Your task to perform on an android device: turn on location history Image 0: 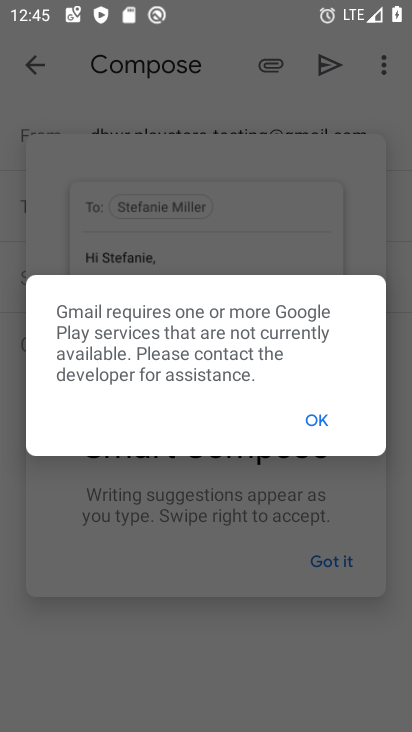
Step 0: press home button
Your task to perform on an android device: turn on location history Image 1: 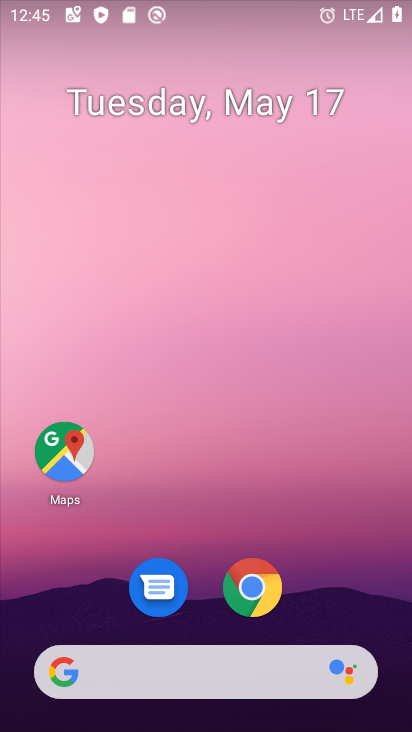
Step 1: drag from (374, 554) to (279, 123)
Your task to perform on an android device: turn on location history Image 2: 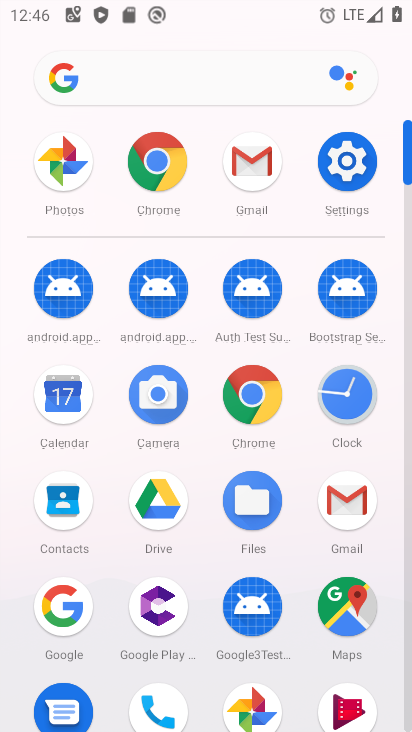
Step 2: click (334, 195)
Your task to perform on an android device: turn on location history Image 3: 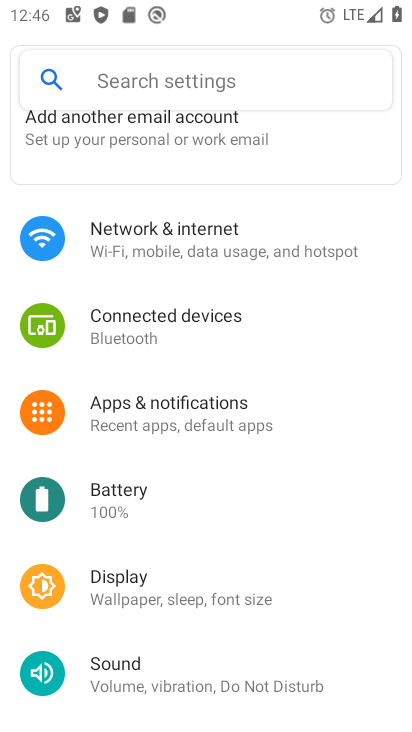
Step 3: drag from (145, 666) to (213, 201)
Your task to perform on an android device: turn on location history Image 4: 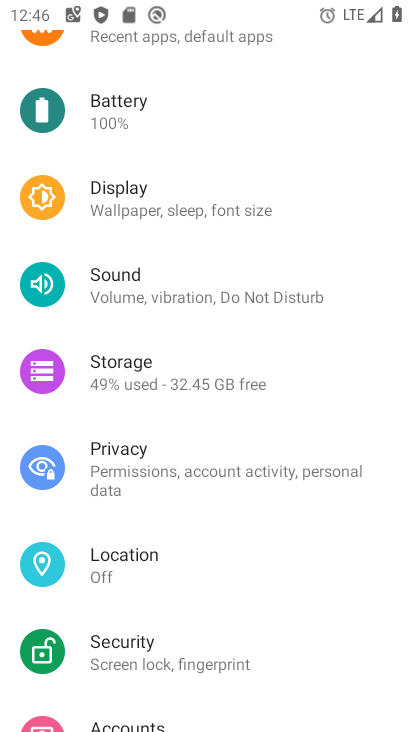
Step 4: click (138, 552)
Your task to perform on an android device: turn on location history Image 5: 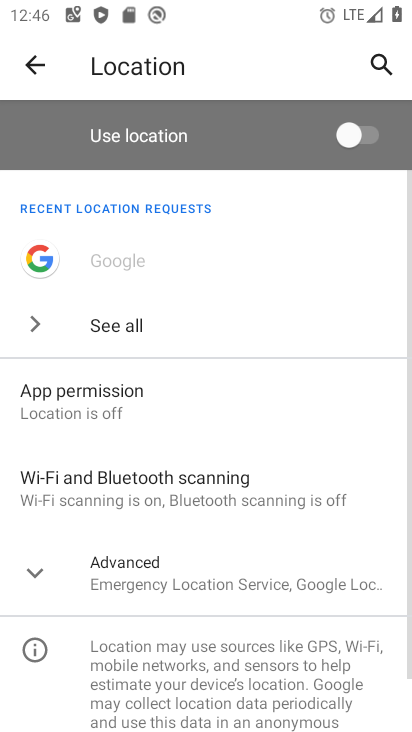
Step 5: click (135, 573)
Your task to perform on an android device: turn on location history Image 6: 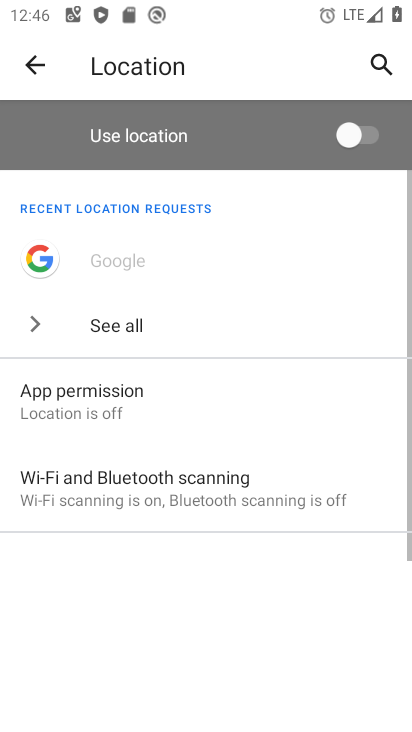
Step 6: drag from (146, 598) to (221, 406)
Your task to perform on an android device: turn on location history Image 7: 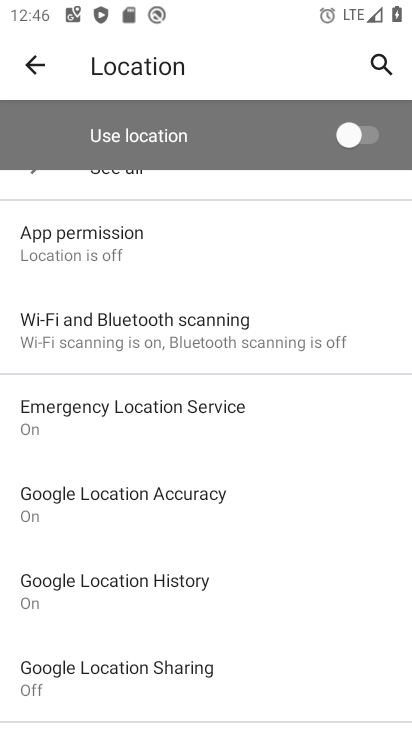
Step 7: click (165, 597)
Your task to perform on an android device: turn on location history Image 8: 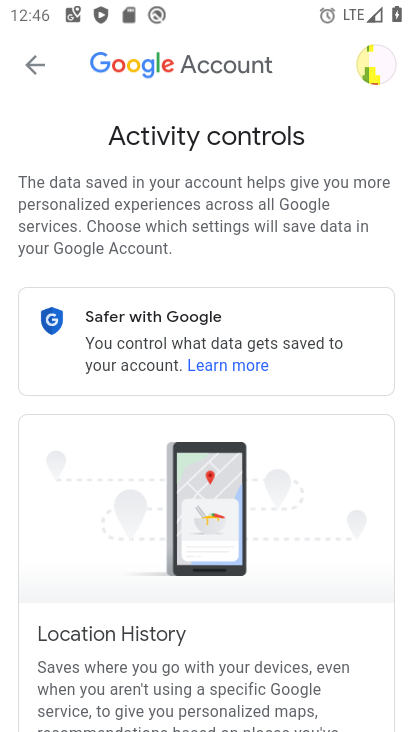
Step 8: drag from (345, 616) to (255, 87)
Your task to perform on an android device: turn on location history Image 9: 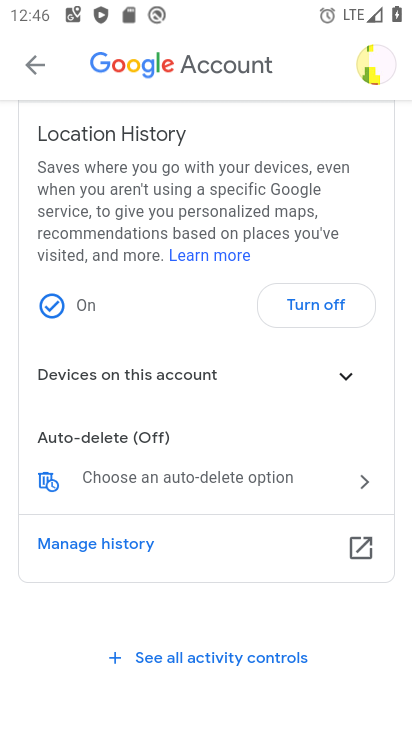
Step 9: click (280, 302)
Your task to perform on an android device: turn on location history Image 10: 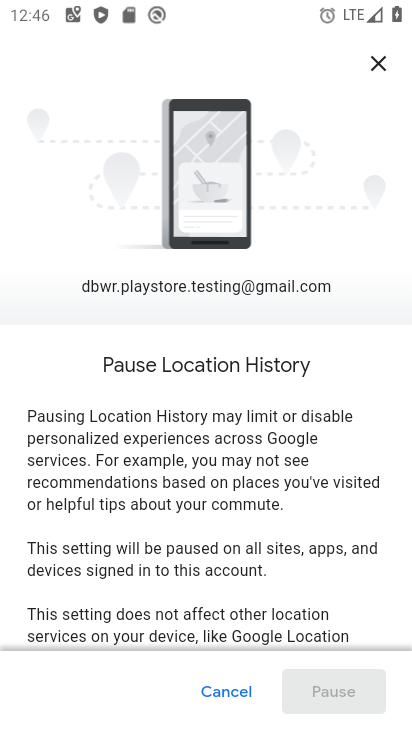
Step 10: task complete